Your task to perform on an android device: What's on my calendar today? Image 0: 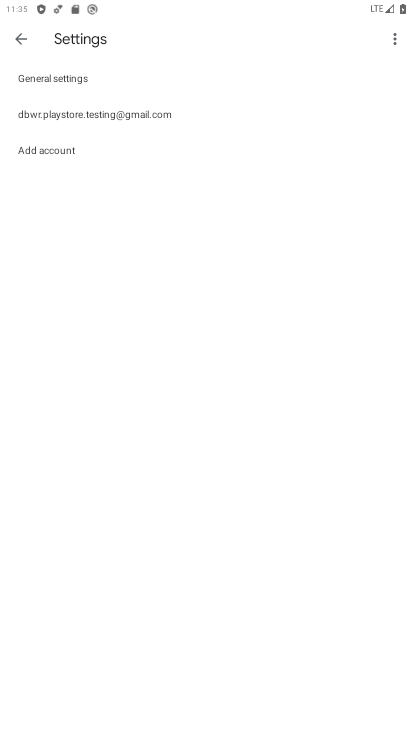
Step 0: press home button
Your task to perform on an android device: What's on my calendar today? Image 1: 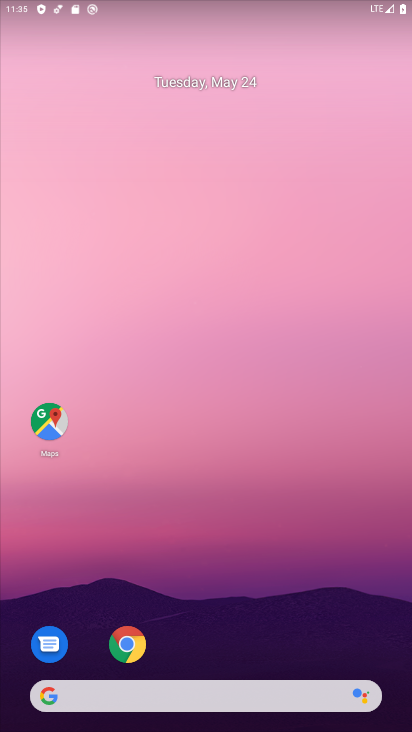
Step 1: drag from (204, 507) to (252, 21)
Your task to perform on an android device: What's on my calendar today? Image 2: 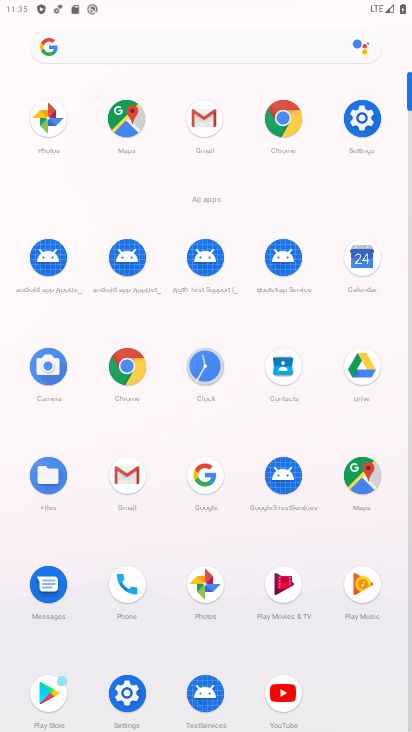
Step 2: click (367, 271)
Your task to perform on an android device: What's on my calendar today? Image 3: 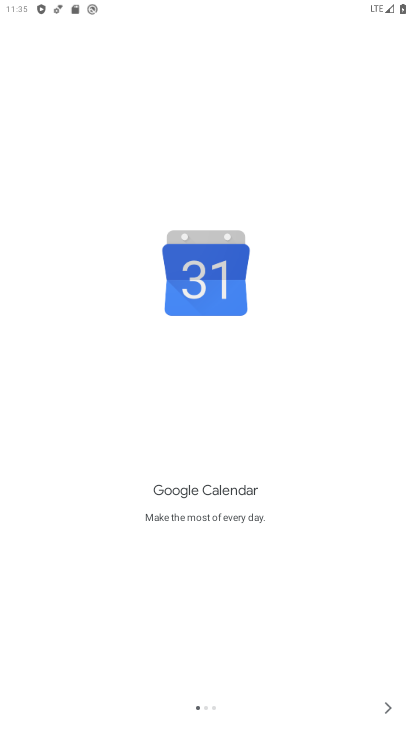
Step 3: click (386, 707)
Your task to perform on an android device: What's on my calendar today? Image 4: 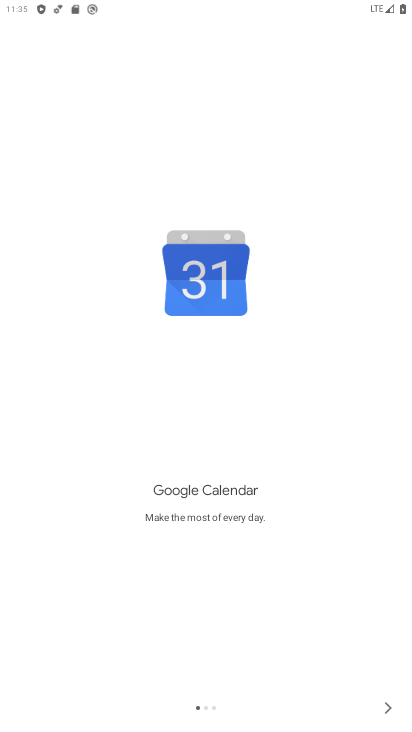
Step 4: click (386, 707)
Your task to perform on an android device: What's on my calendar today? Image 5: 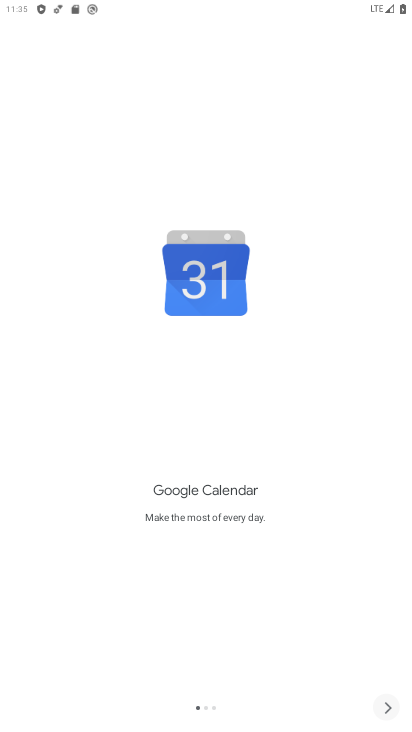
Step 5: click (386, 707)
Your task to perform on an android device: What's on my calendar today? Image 6: 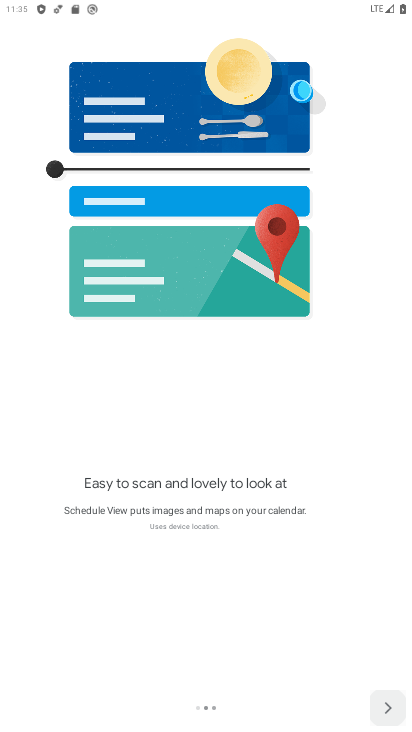
Step 6: click (386, 707)
Your task to perform on an android device: What's on my calendar today? Image 7: 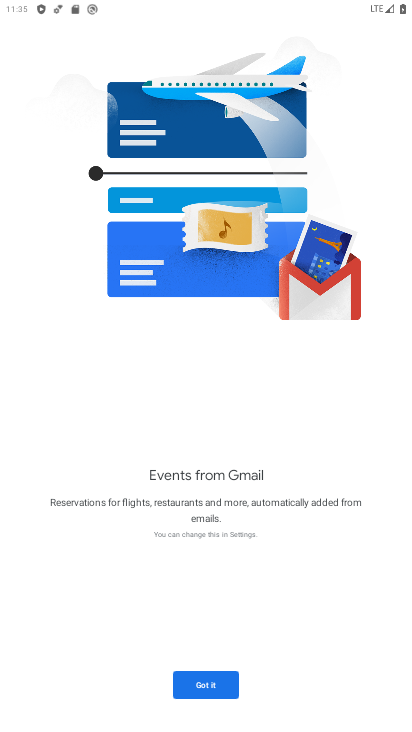
Step 7: click (212, 687)
Your task to perform on an android device: What's on my calendar today? Image 8: 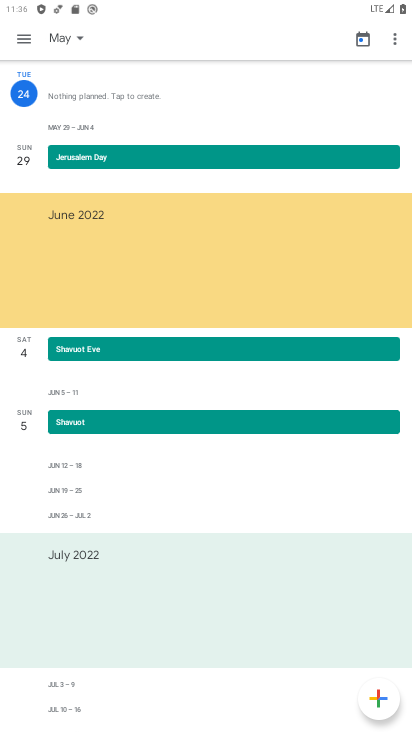
Step 8: click (15, 31)
Your task to perform on an android device: What's on my calendar today? Image 9: 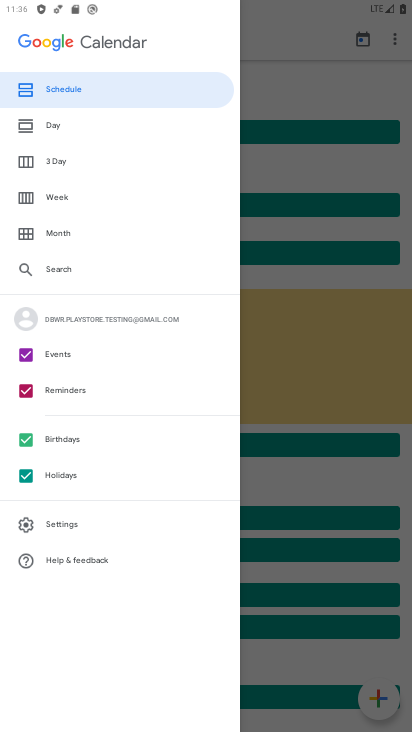
Step 9: click (50, 121)
Your task to perform on an android device: What's on my calendar today? Image 10: 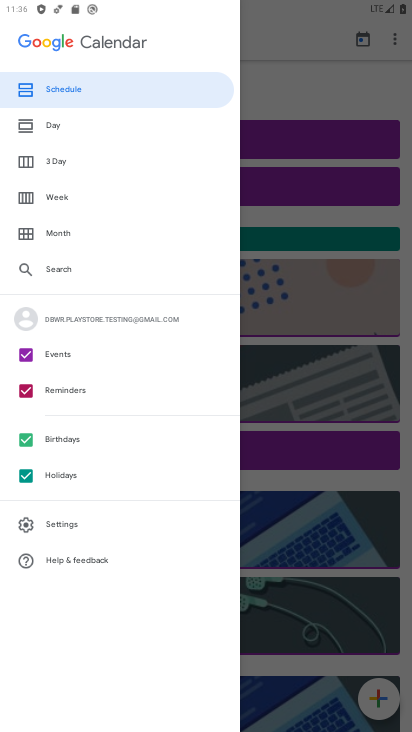
Step 10: click (50, 132)
Your task to perform on an android device: What's on my calendar today? Image 11: 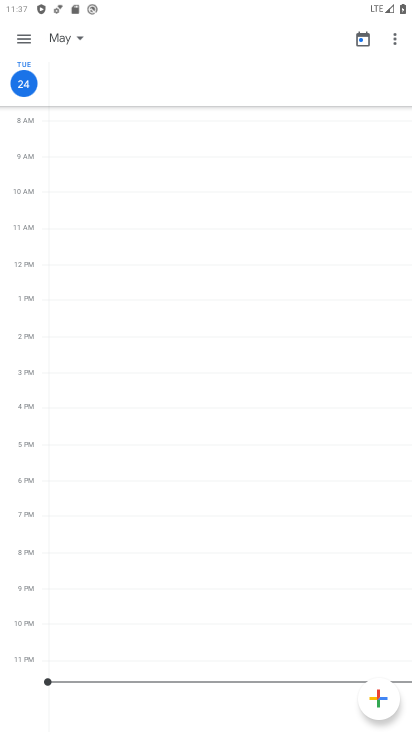
Step 11: task complete